Your task to perform on an android device: check out phone information Image 0: 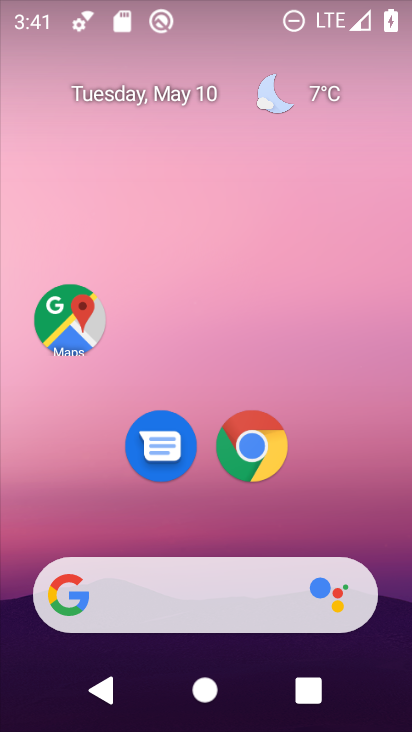
Step 0: drag from (211, 475) to (226, 87)
Your task to perform on an android device: check out phone information Image 1: 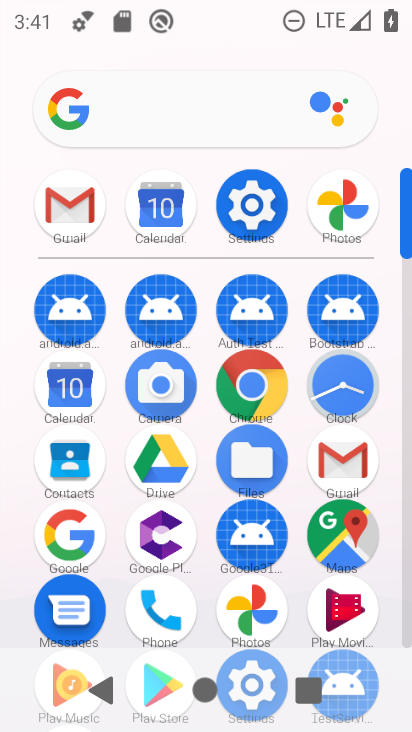
Step 1: click (245, 201)
Your task to perform on an android device: check out phone information Image 2: 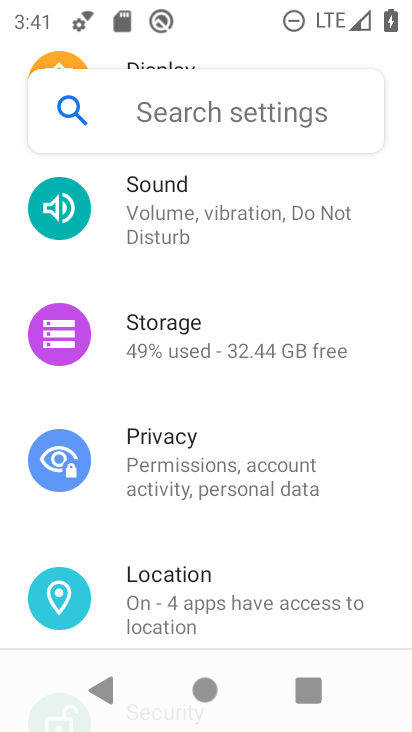
Step 2: drag from (226, 546) to (262, 134)
Your task to perform on an android device: check out phone information Image 3: 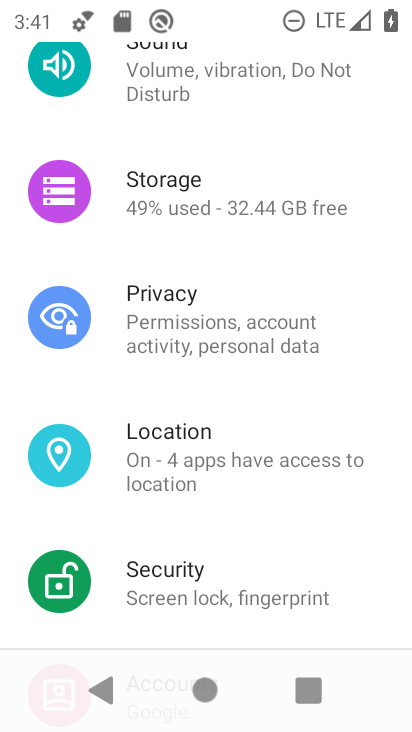
Step 3: drag from (203, 529) to (200, 164)
Your task to perform on an android device: check out phone information Image 4: 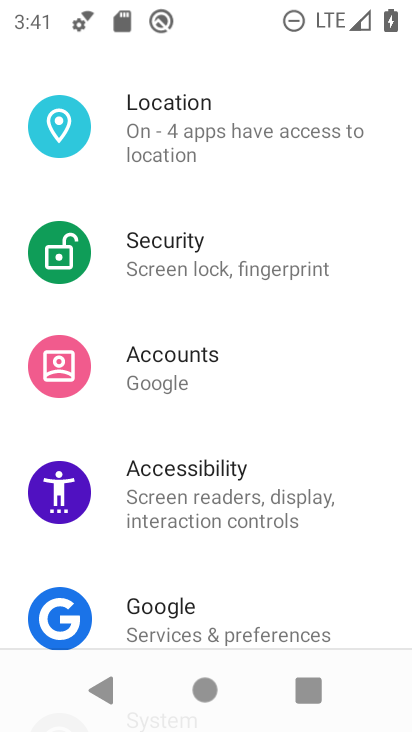
Step 4: drag from (193, 552) to (230, 229)
Your task to perform on an android device: check out phone information Image 5: 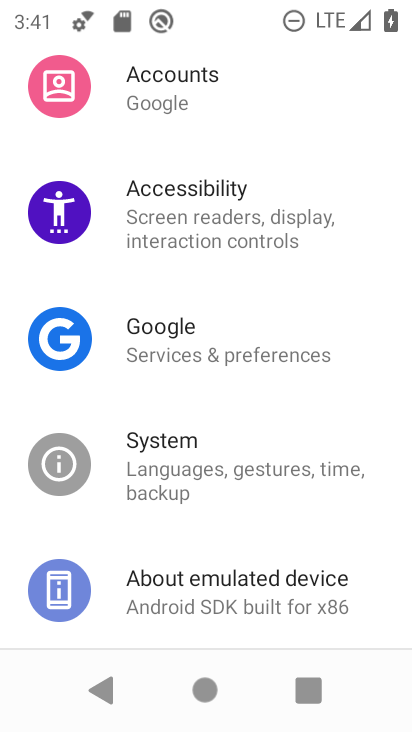
Step 5: drag from (201, 565) to (252, 260)
Your task to perform on an android device: check out phone information Image 6: 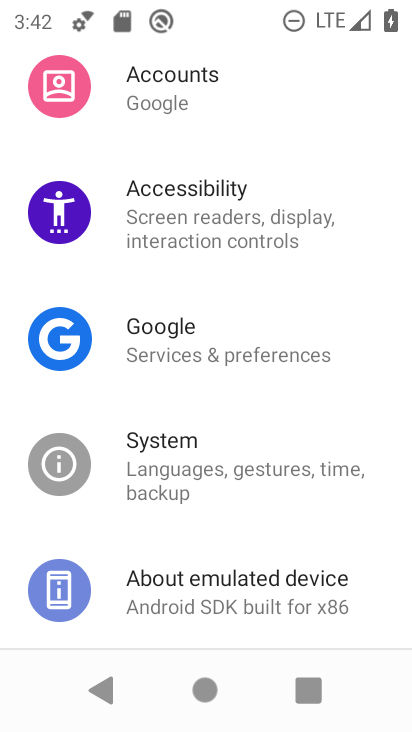
Step 6: click (257, 602)
Your task to perform on an android device: check out phone information Image 7: 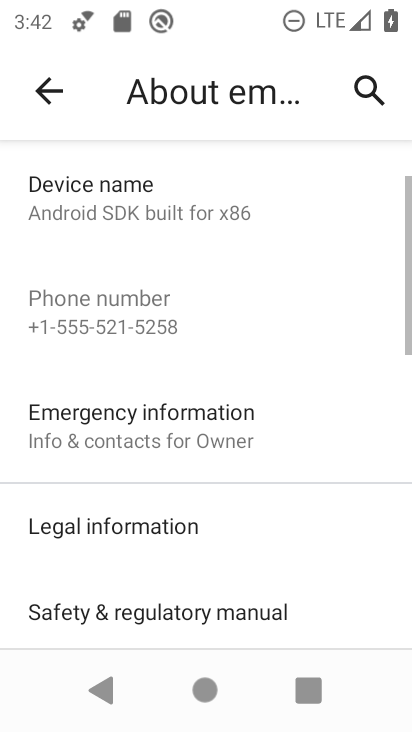
Step 7: task complete